Your task to perform on an android device: Go to Google Image 0: 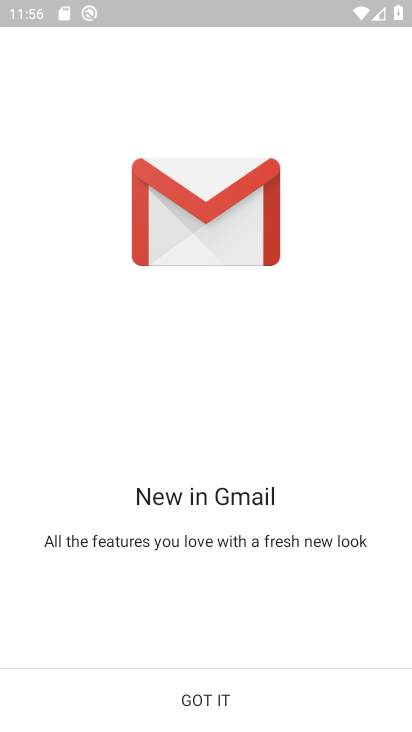
Step 0: press home button
Your task to perform on an android device: Go to Google Image 1: 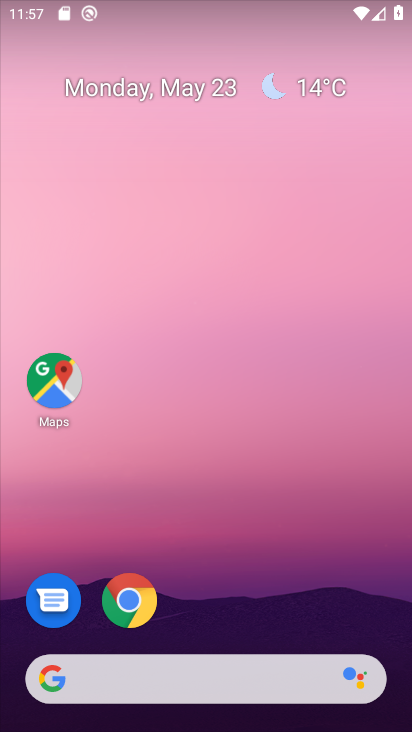
Step 1: drag from (162, 668) to (263, 46)
Your task to perform on an android device: Go to Google Image 2: 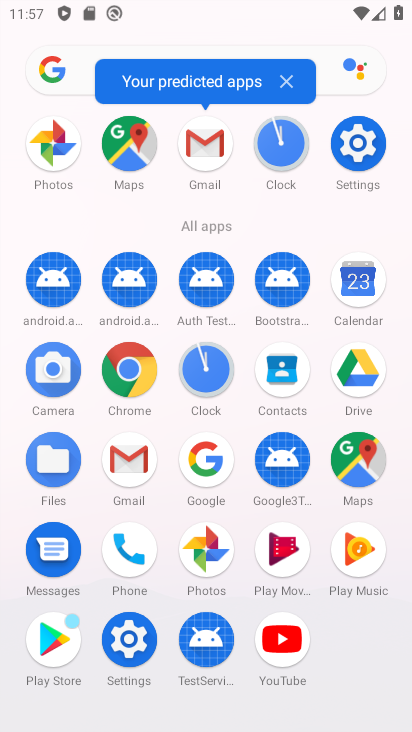
Step 2: click (211, 455)
Your task to perform on an android device: Go to Google Image 3: 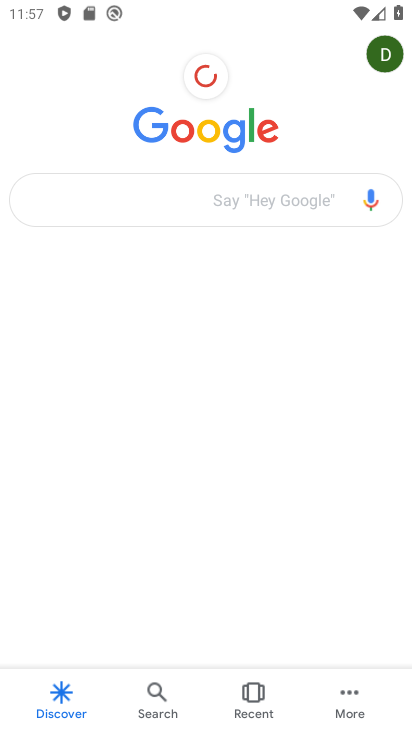
Step 3: task complete